Your task to perform on an android device: change text size in settings app Image 0: 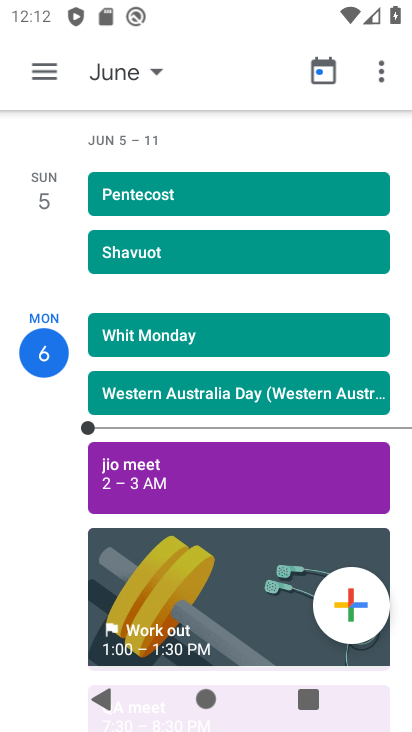
Step 0: press home button
Your task to perform on an android device: change text size in settings app Image 1: 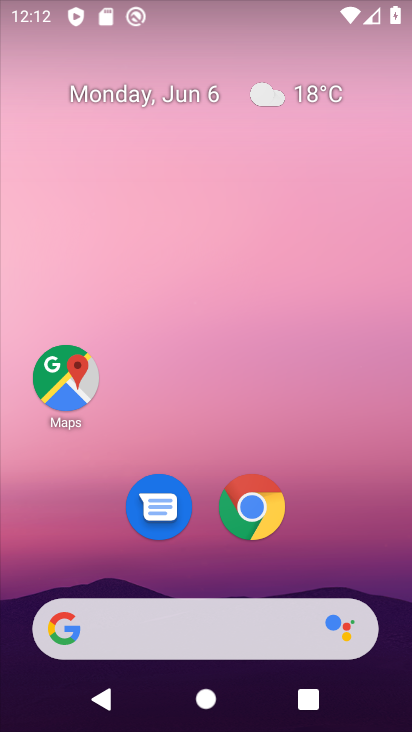
Step 1: drag from (216, 569) to (295, 1)
Your task to perform on an android device: change text size in settings app Image 2: 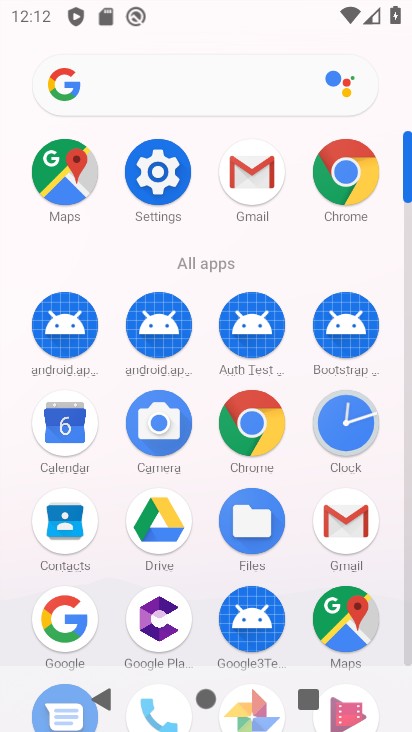
Step 2: click (165, 179)
Your task to perform on an android device: change text size in settings app Image 3: 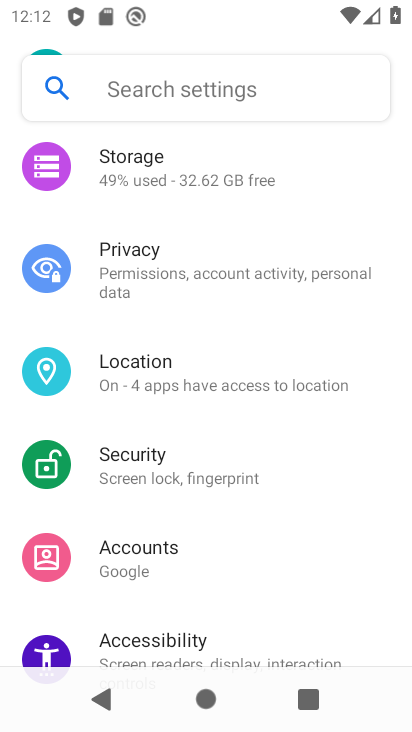
Step 3: drag from (184, 244) to (183, 597)
Your task to perform on an android device: change text size in settings app Image 4: 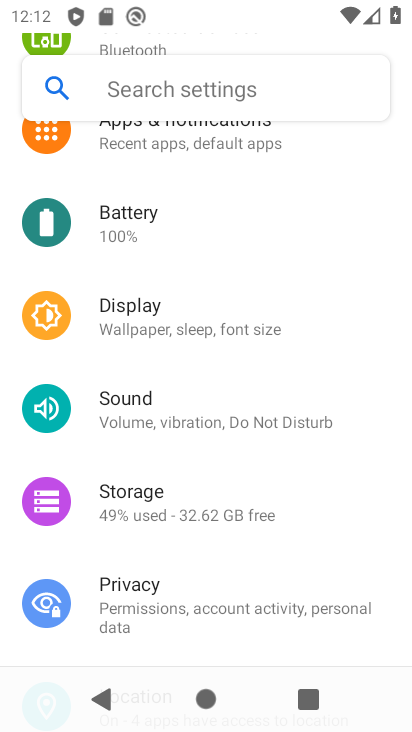
Step 4: drag from (169, 321) to (172, 425)
Your task to perform on an android device: change text size in settings app Image 5: 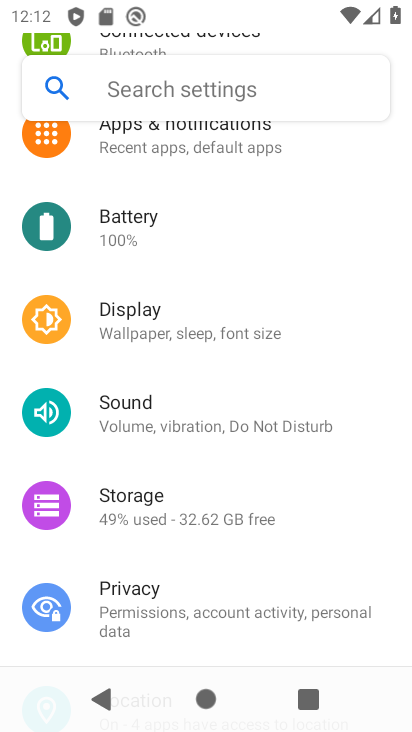
Step 5: click (145, 341)
Your task to perform on an android device: change text size in settings app Image 6: 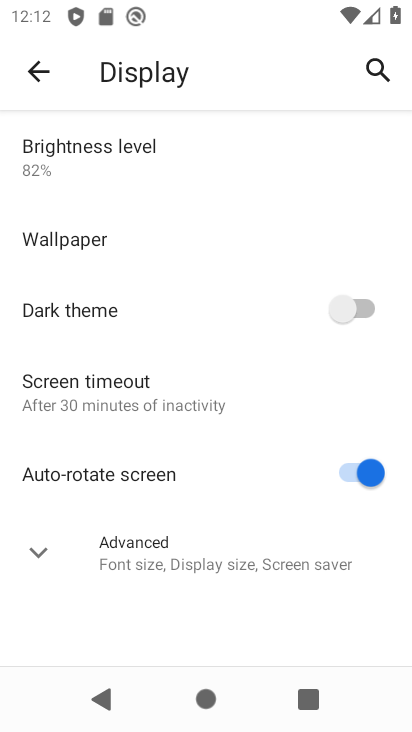
Step 6: click (193, 553)
Your task to perform on an android device: change text size in settings app Image 7: 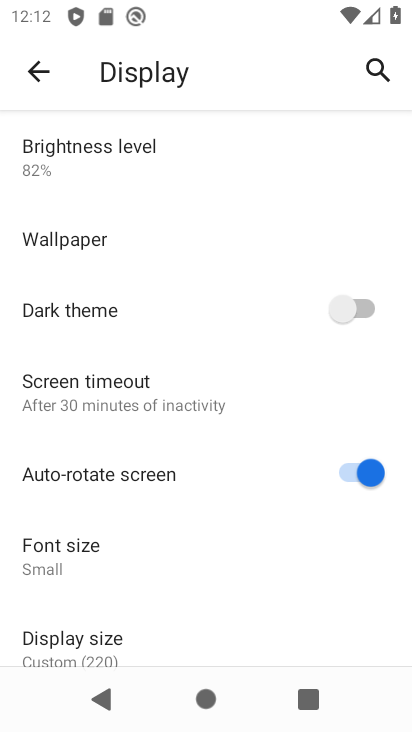
Step 7: click (85, 545)
Your task to perform on an android device: change text size in settings app Image 8: 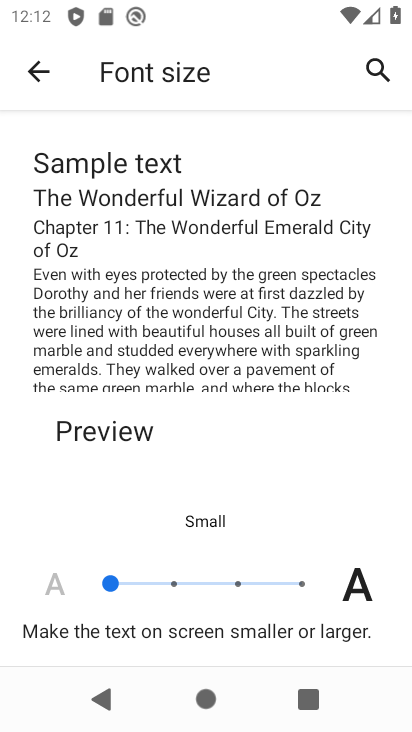
Step 8: click (168, 569)
Your task to perform on an android device: change text size in settings app Image 9: 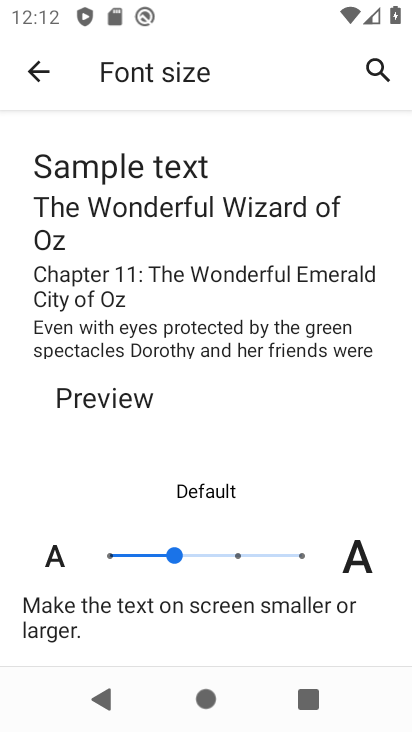
Step 9: task complete